Your task to perform on an android device: install app "Paramount+ | Peak Streaming" Image 0: 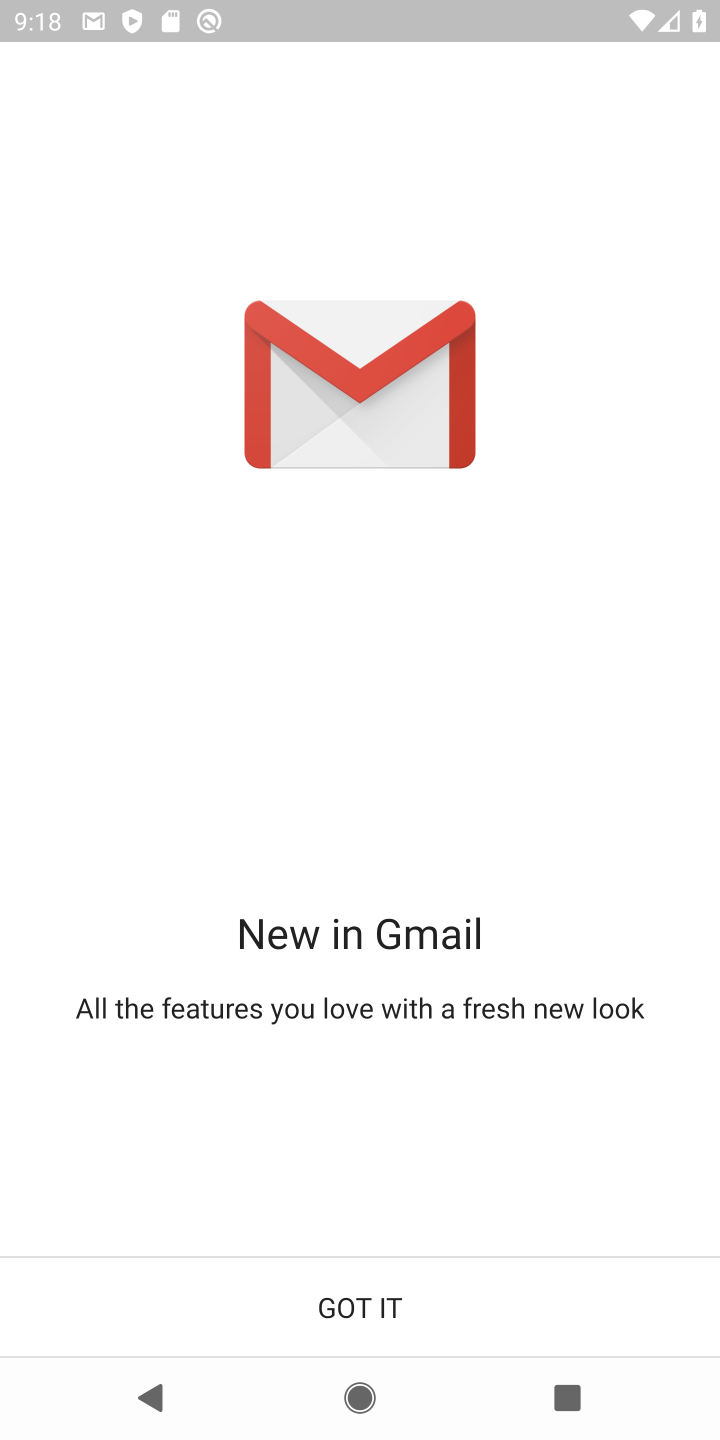
Step 0: press home button
Your task to perform on an android device: install app "Paramount+ | Peak Streaming" Image 1: 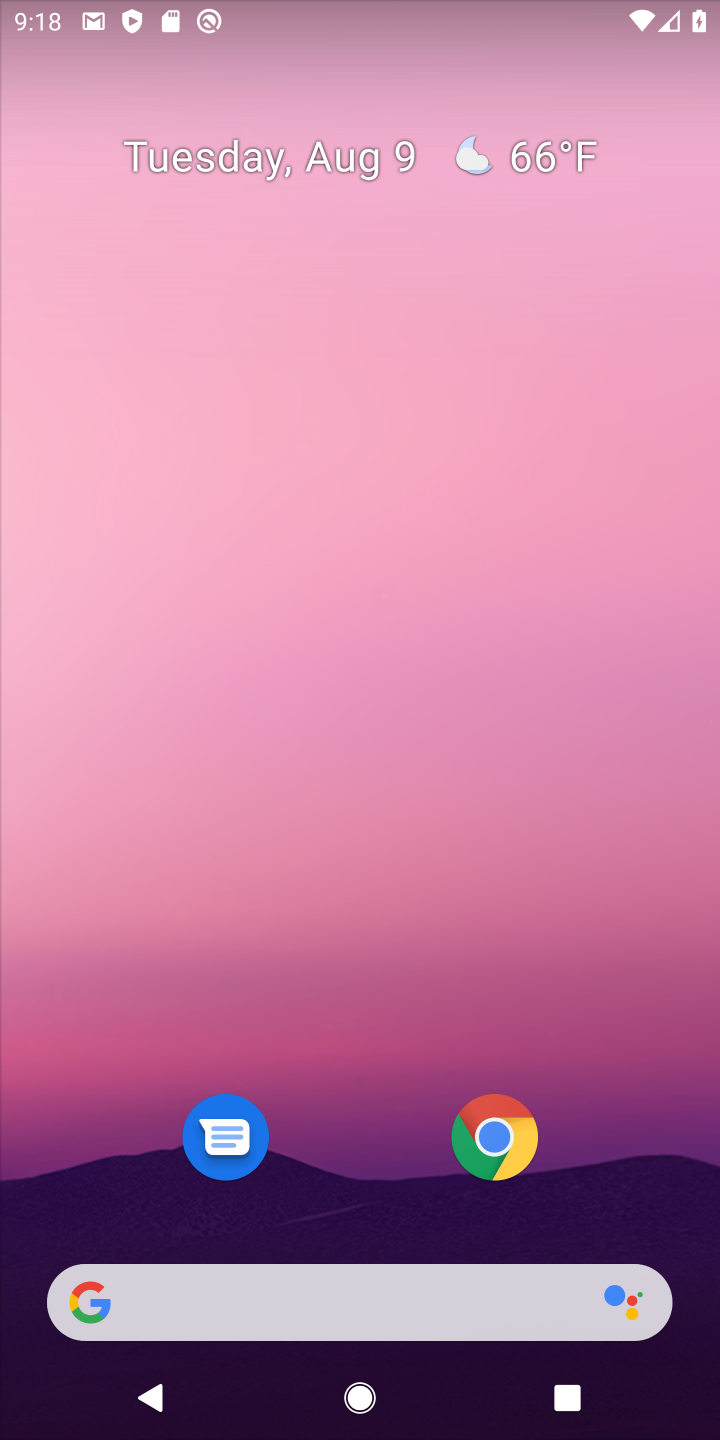
Step 1: drag from (358, 809) to (361, 288)
Your task to perform on an android device: install app "Paramount+ | Peak Streaming" Image 2: 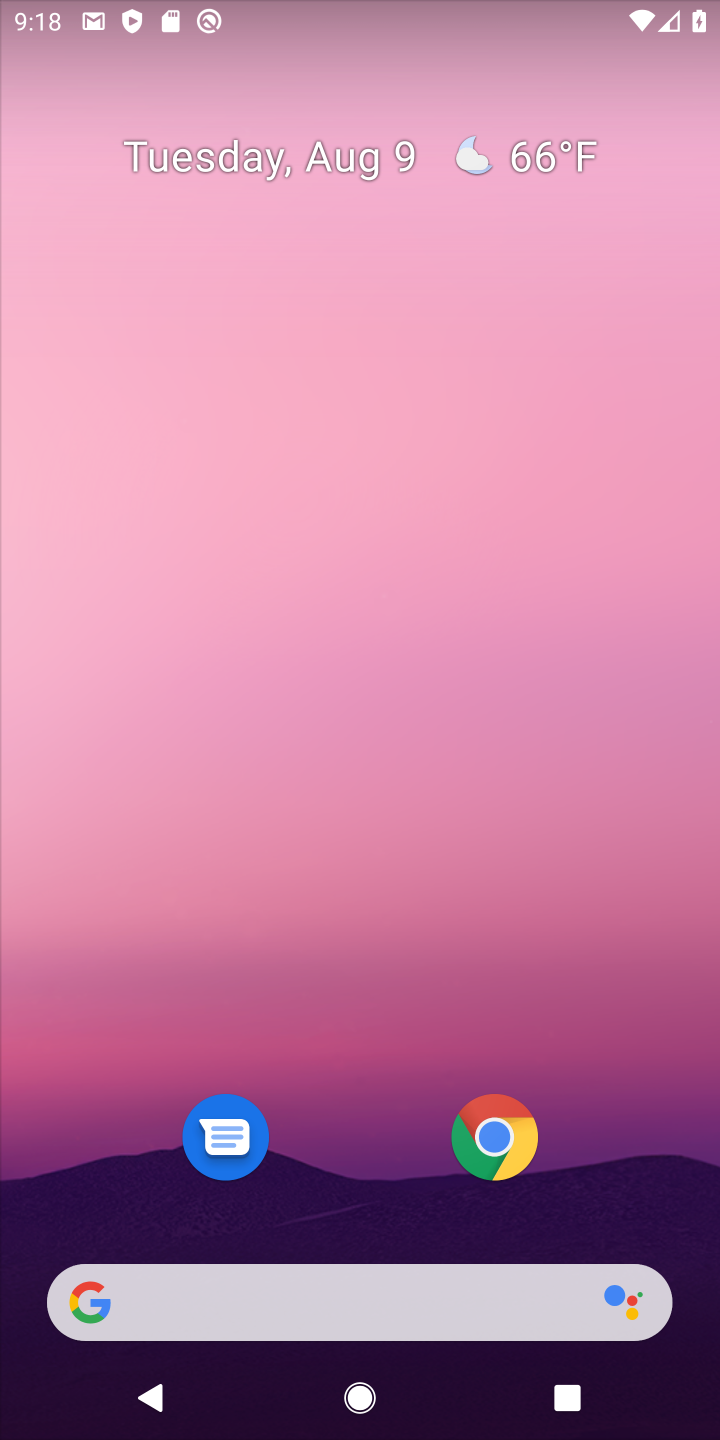
Step 2: drag from (336, 1166) to (409, 409)
Your task to perform on an android device: install app "Paramount+ | Peak Streaming" Image 3: 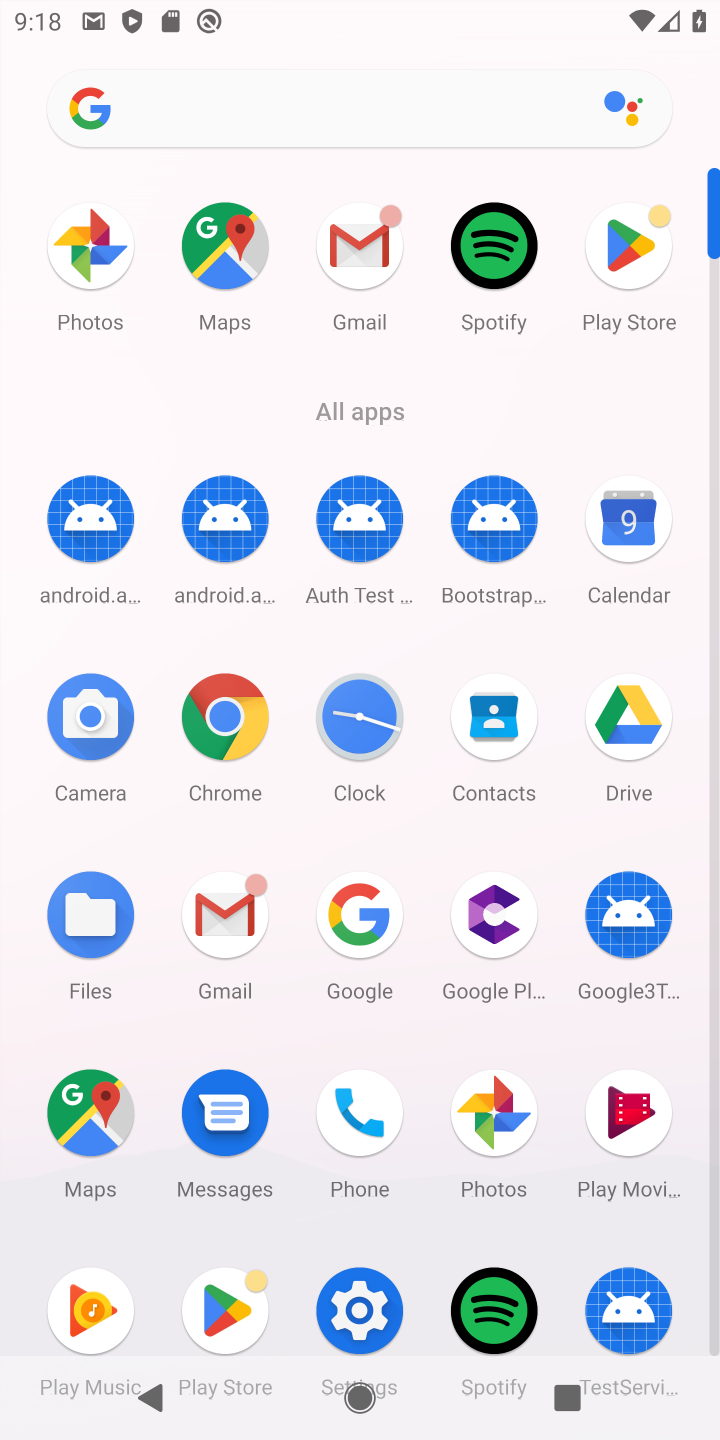
Step 3: click (619, 231)
Your task to perform on an android device: install app "Paramount+ | Peak Streaming" Image 4: 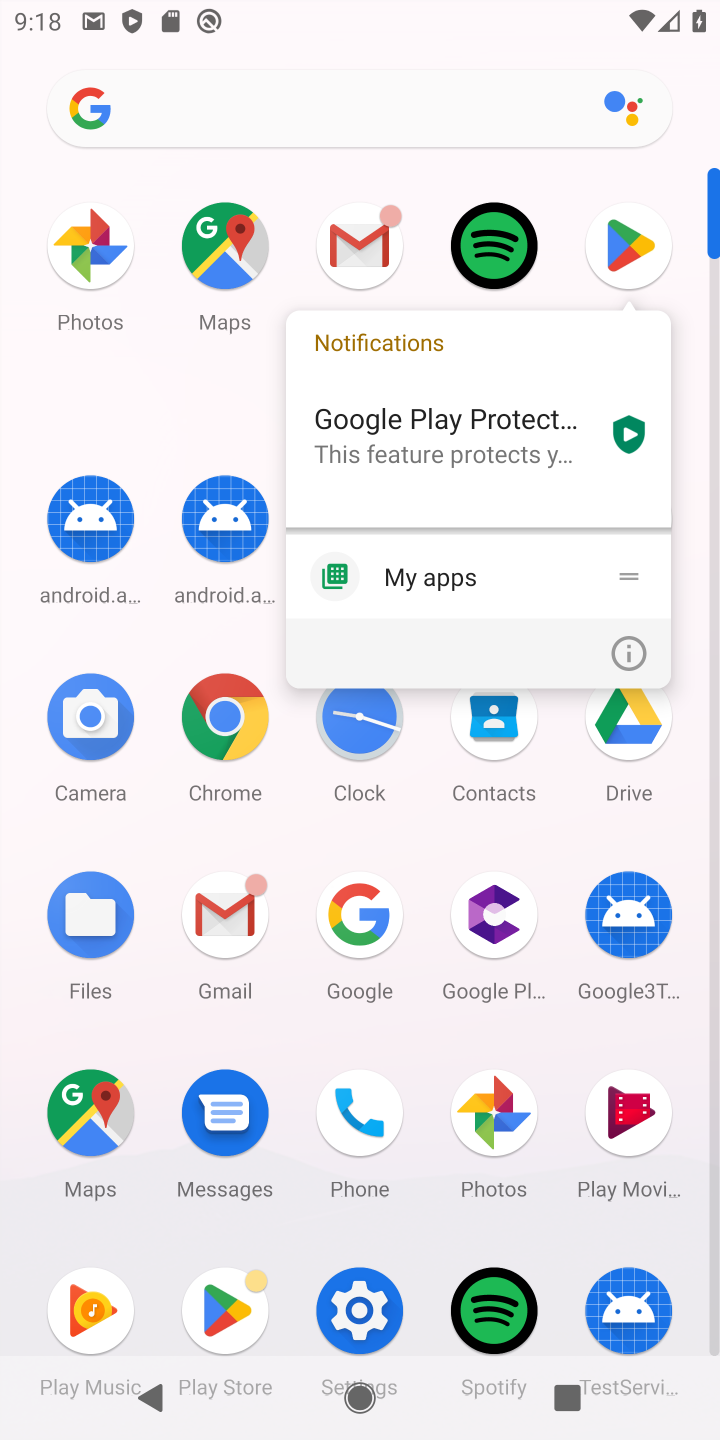
Step 4: click (619, 231)
Your task to perform on an android device: install app "Paramount+ | Peak Streaming" Image 5: 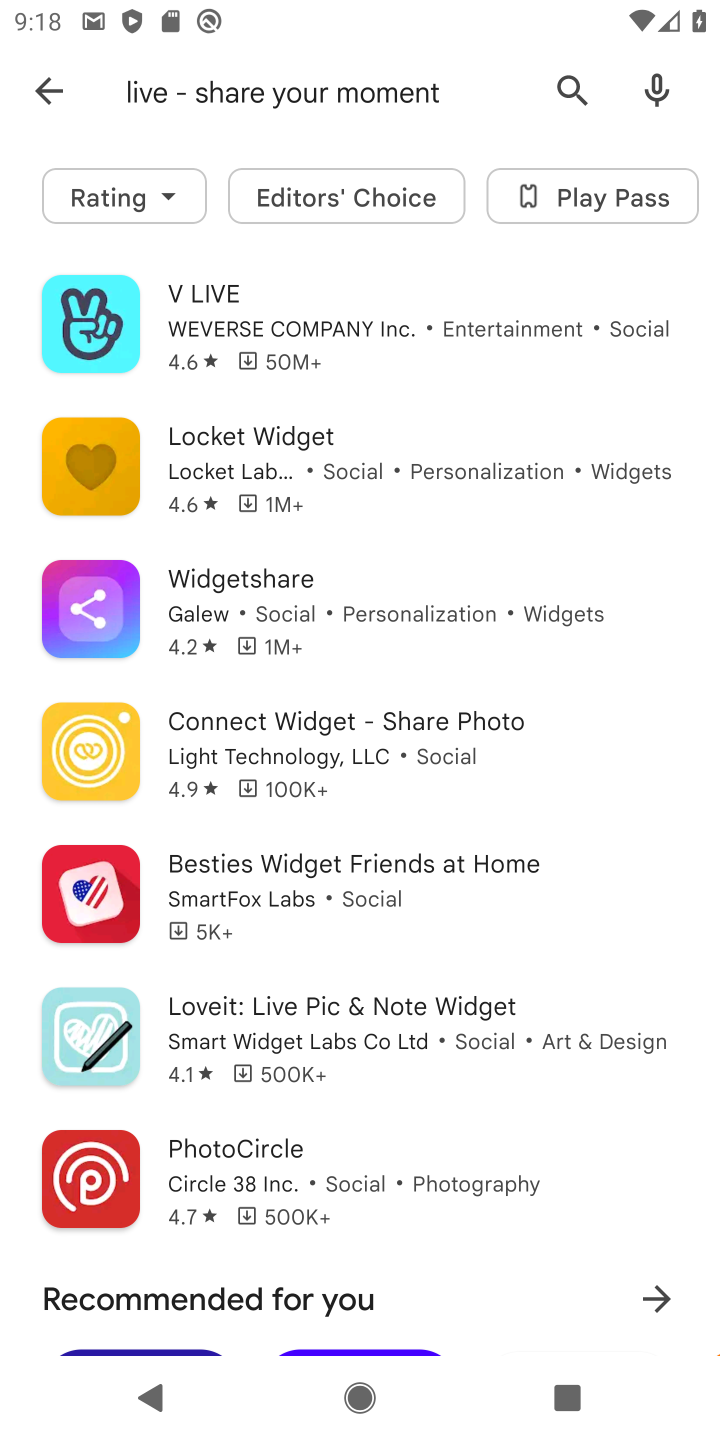
Step 5: click (595, 88)
Your task to perform on an android device: install app "Paramount+ | Peak Streaming" Image 6: 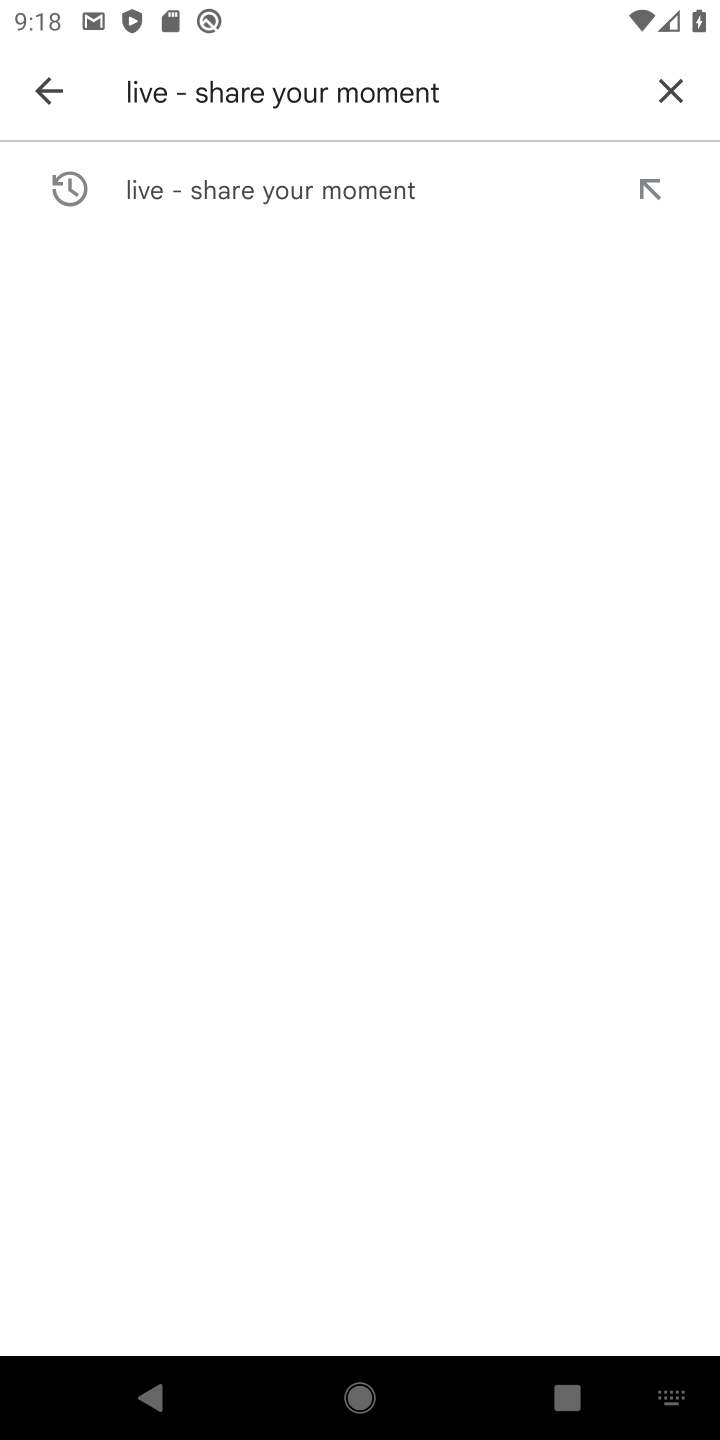
Step 6: click (658, 84)
Your task to perform on an android device: install app "Paramount+ | Peak Streaming" Image 7: 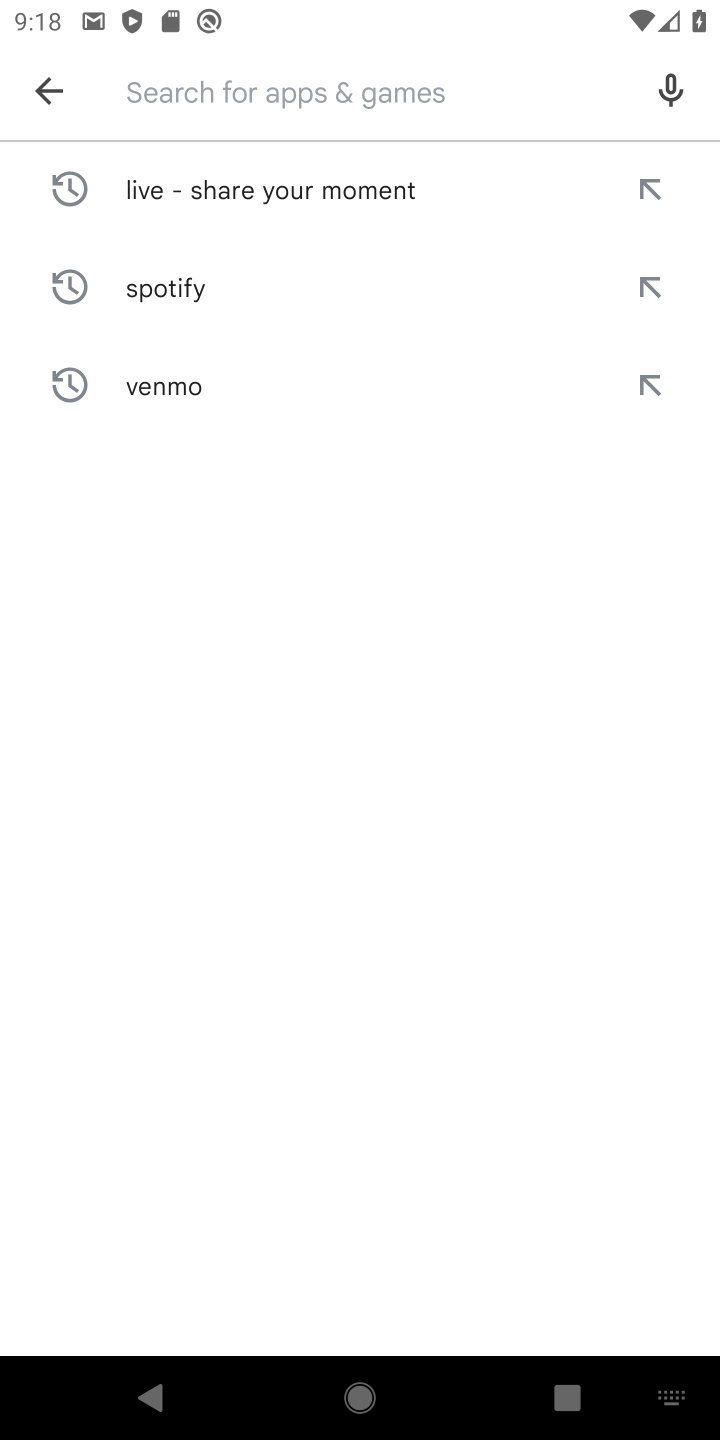
Step 7: type "Paramount+ | Peak Streaming"
Your task to perform on an android device: install app "Paramount+ | Peak Streaming" Image 8: 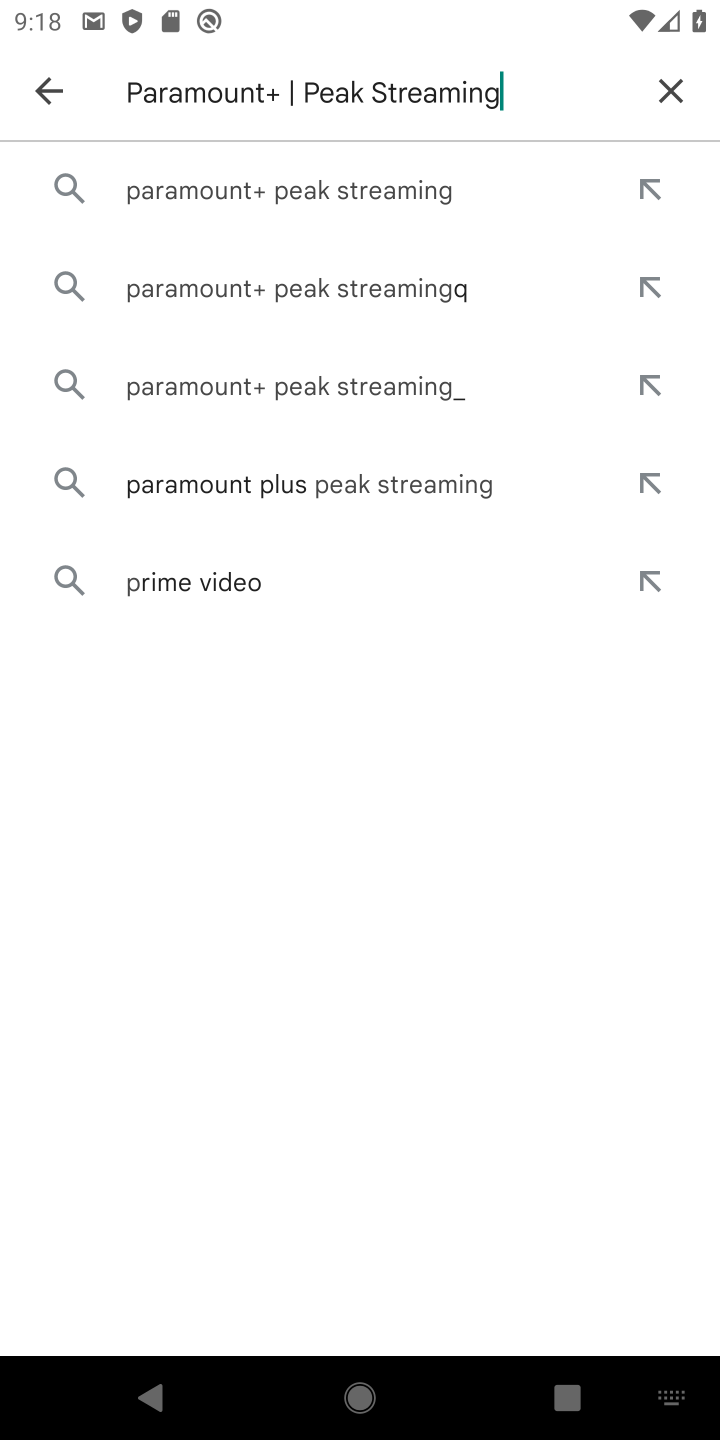
Step 8: type ""
Your task to perform on an android device: install app "Paramount+ | Peak Streaming" Image 9: 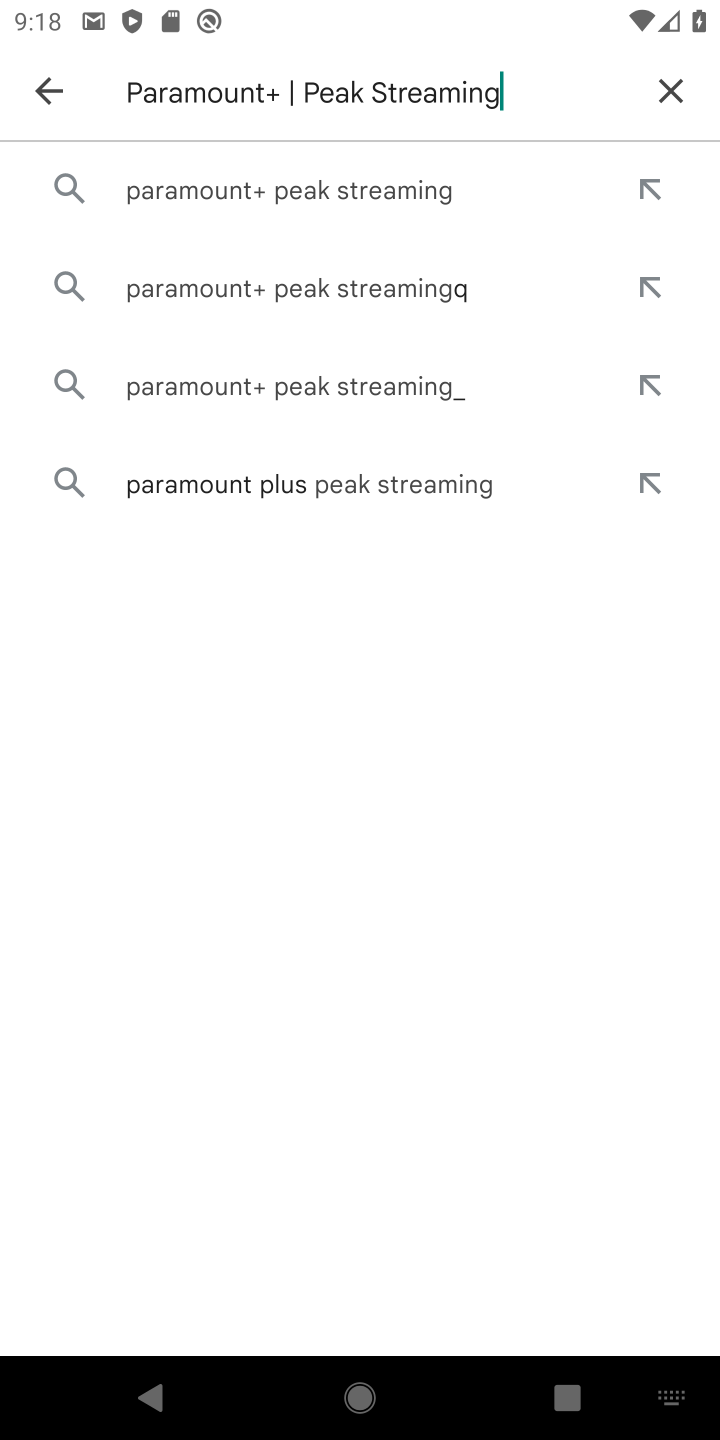
Step 9: click (334, 197)
Your task to perform on an android device: install app "Paramount+ | Peak Streaming" Image 10: 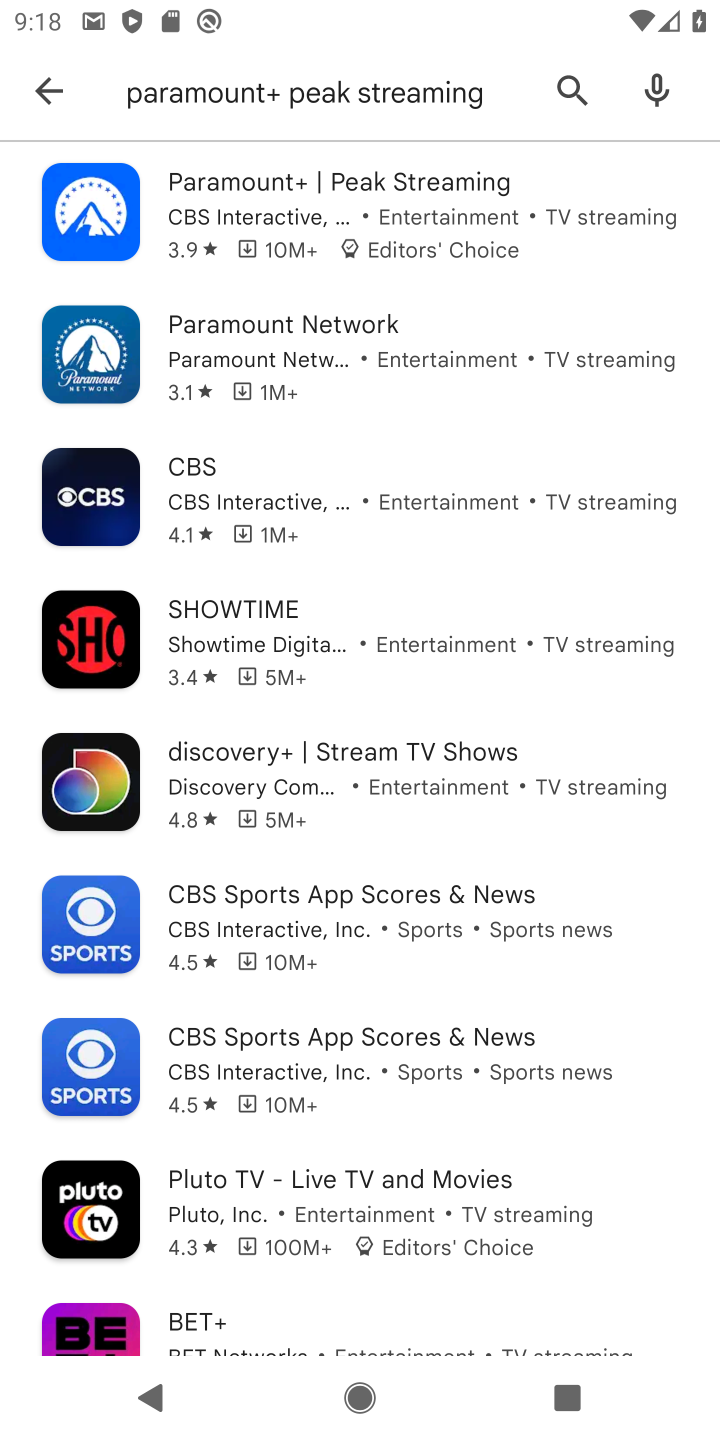
Step 10: click (386, 214)
Your task to perform on an android device: install app "Paramount+ | Peak Streaming" Image 11: 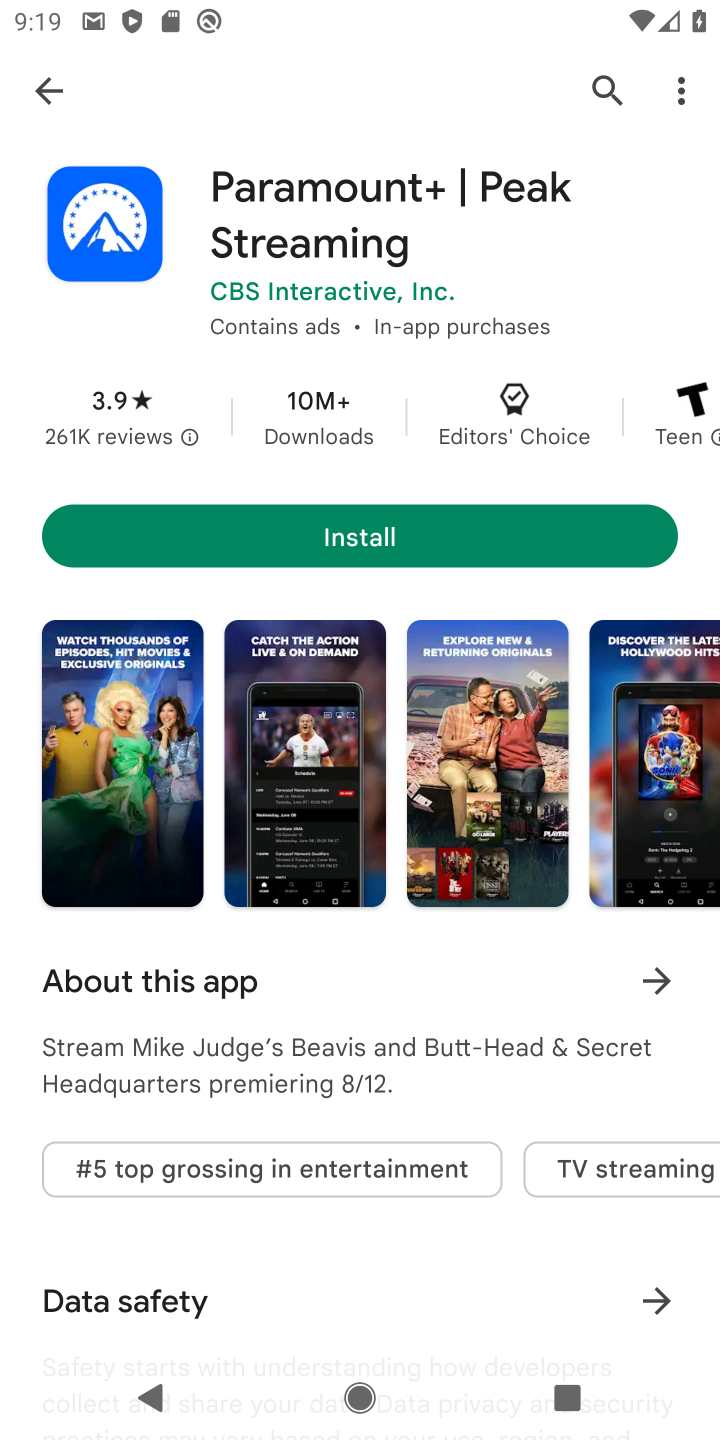
Step 11: click (367, 549)
Your task to perform on an android device: install app "Paramount+ | Peak Streaming" Image 12: 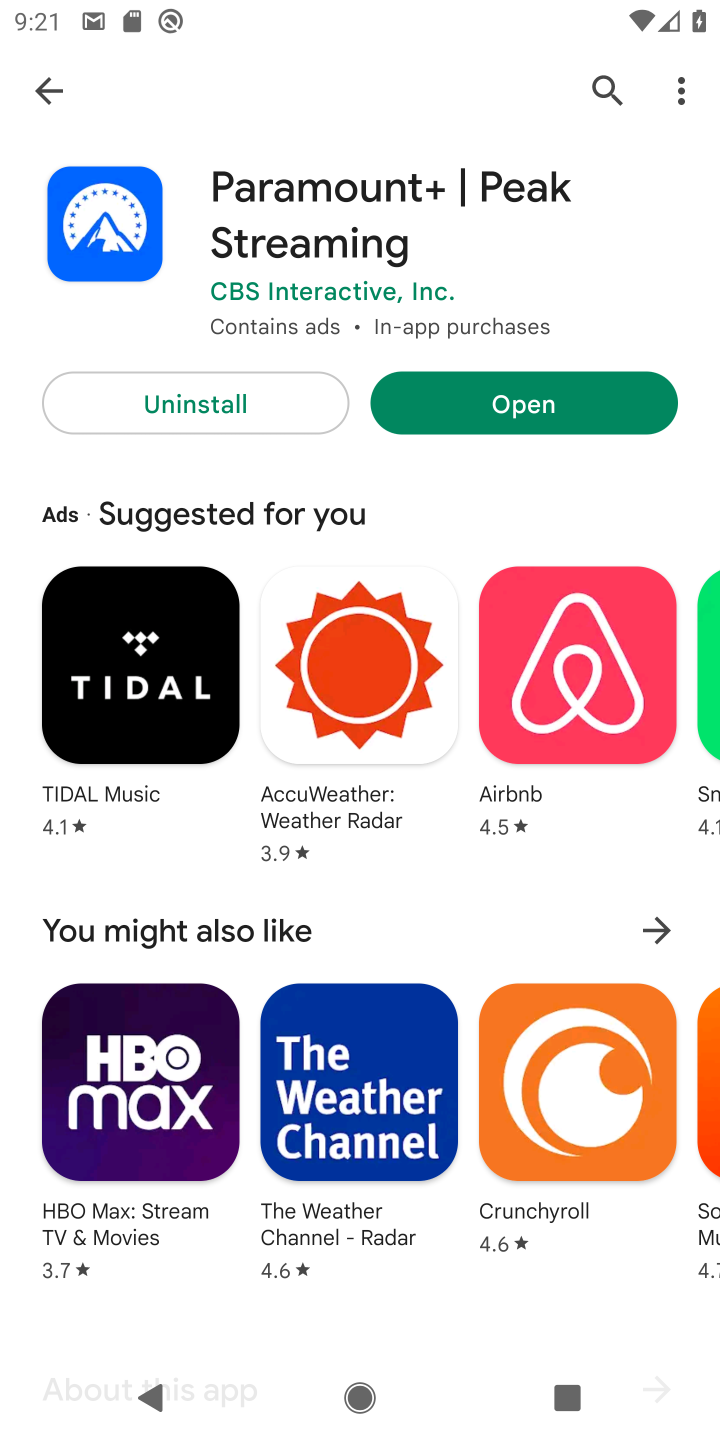
Step 12: task complete